Your task to perform on an android device: Open the stopwatch Image 0: 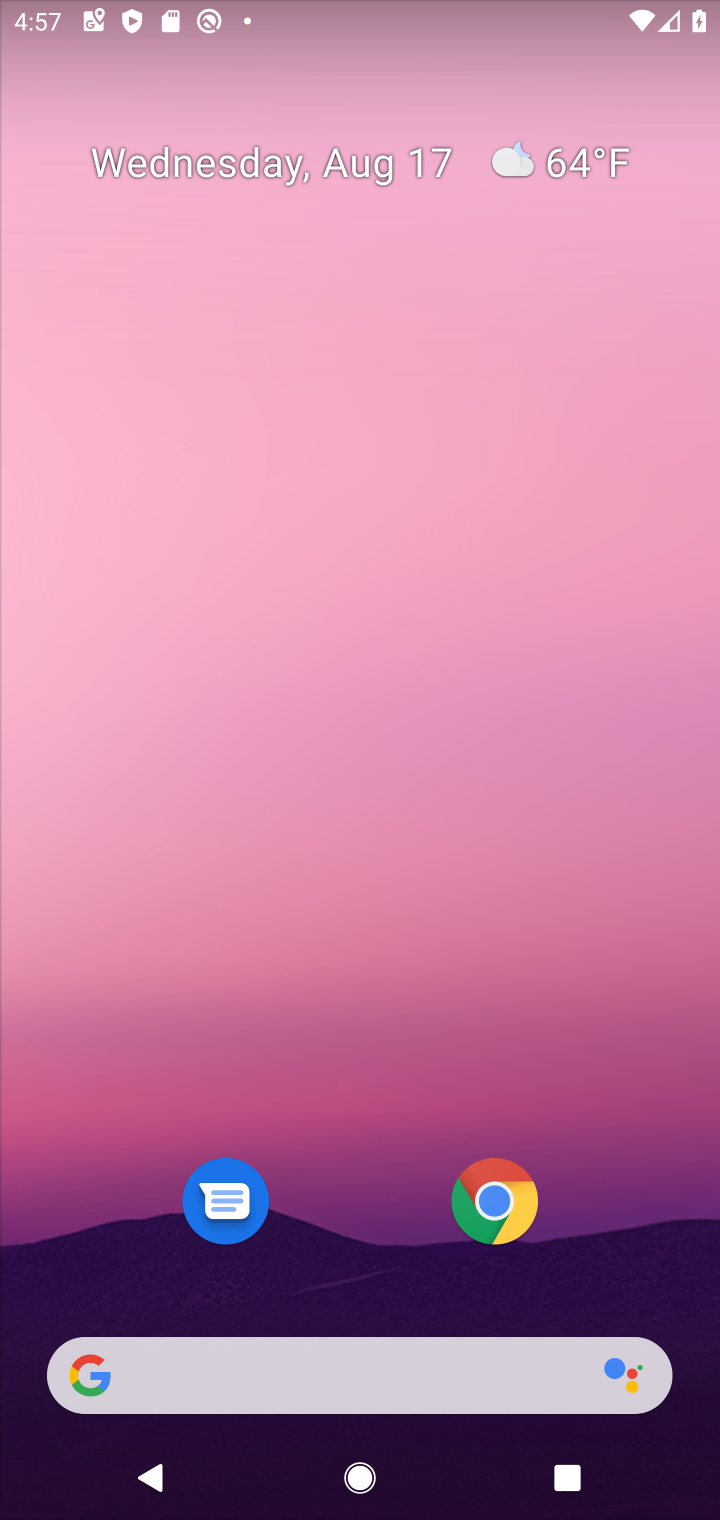
Step 0: press home button
Your task to perform on an android device: Open the stopwatch Image 1: 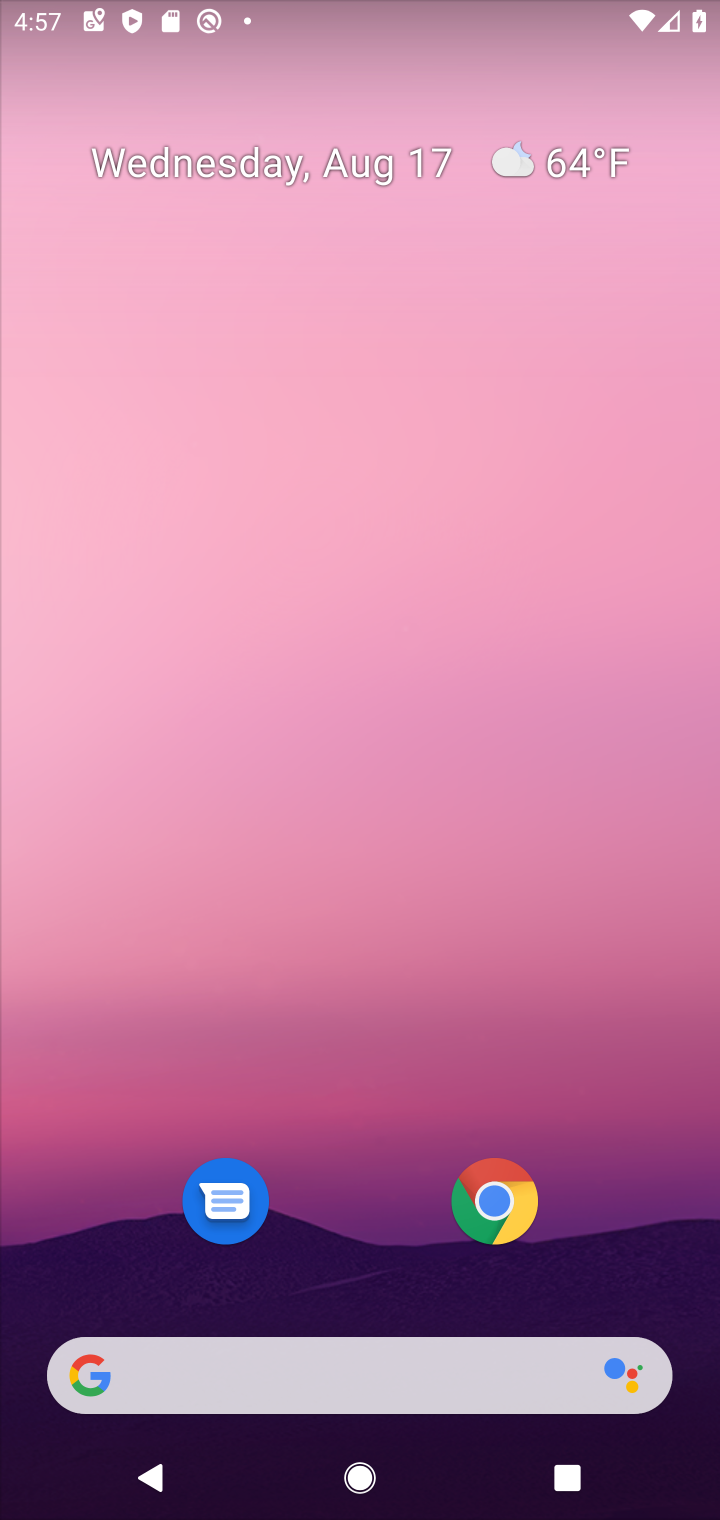
Step 1: press home button
Your task to perform on an android device: Open the stopwatch Image 2: 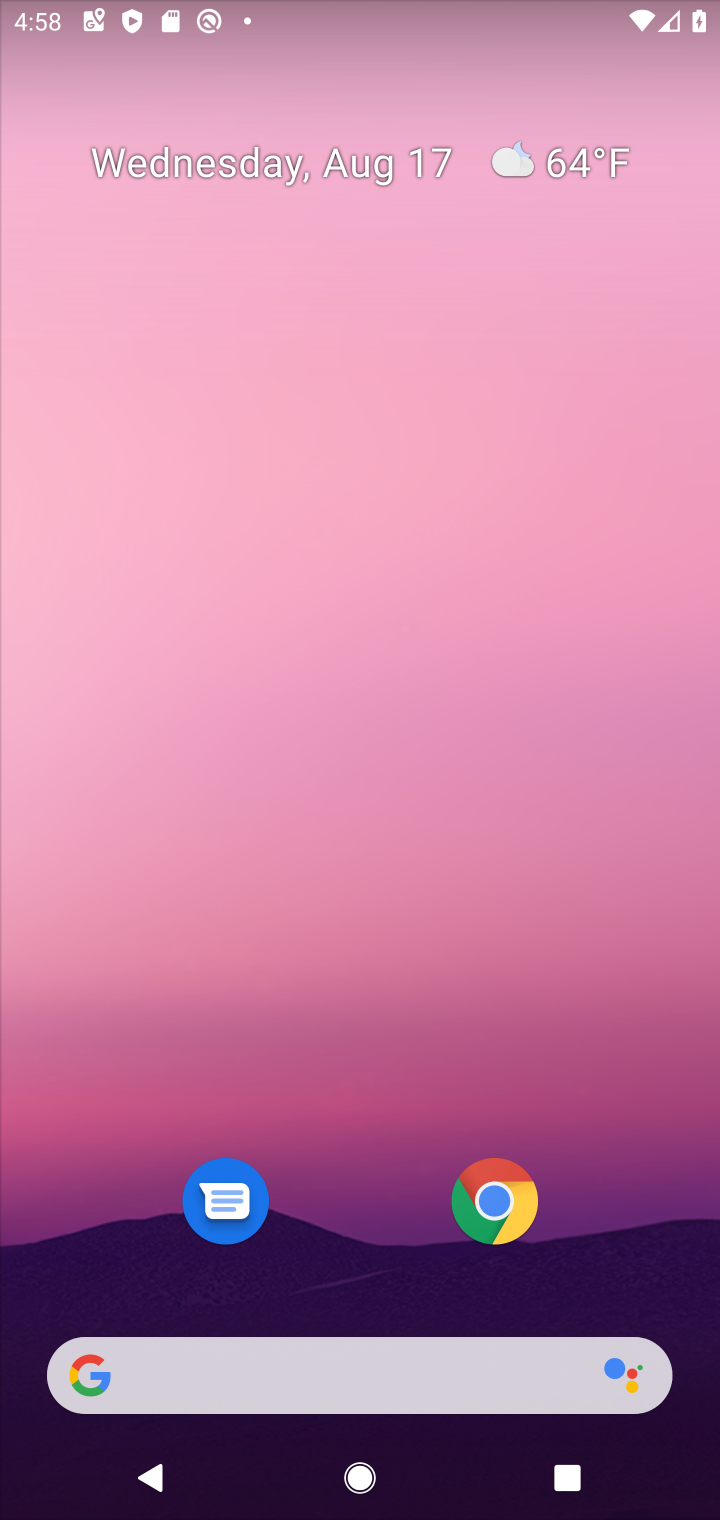
Step 2: drag from (350, 977) to (331, 63)
Your task to perform on an android device: Open the stopwatch Image 3: 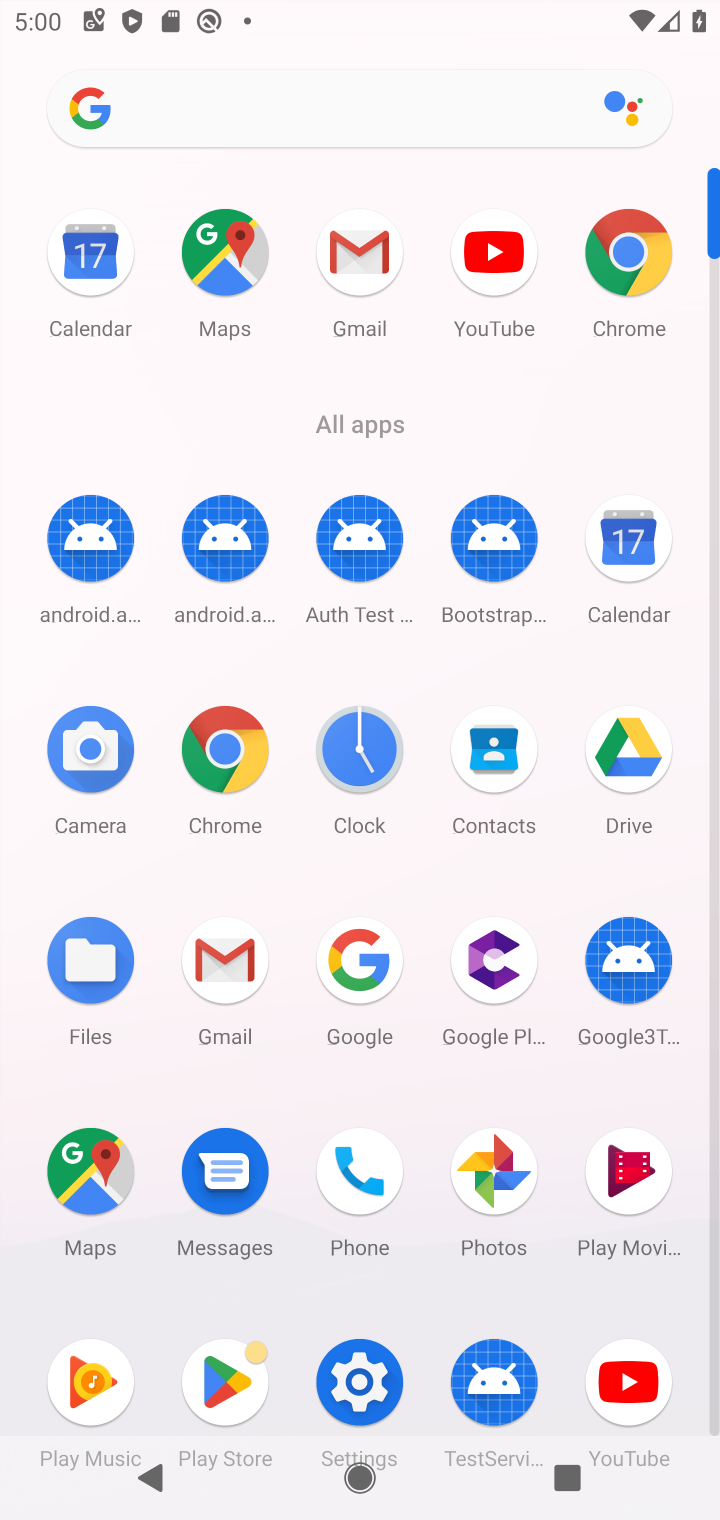
Step 3: click (362, 780)
Your task to perform on an android device: Open the stopwatch Image 4: 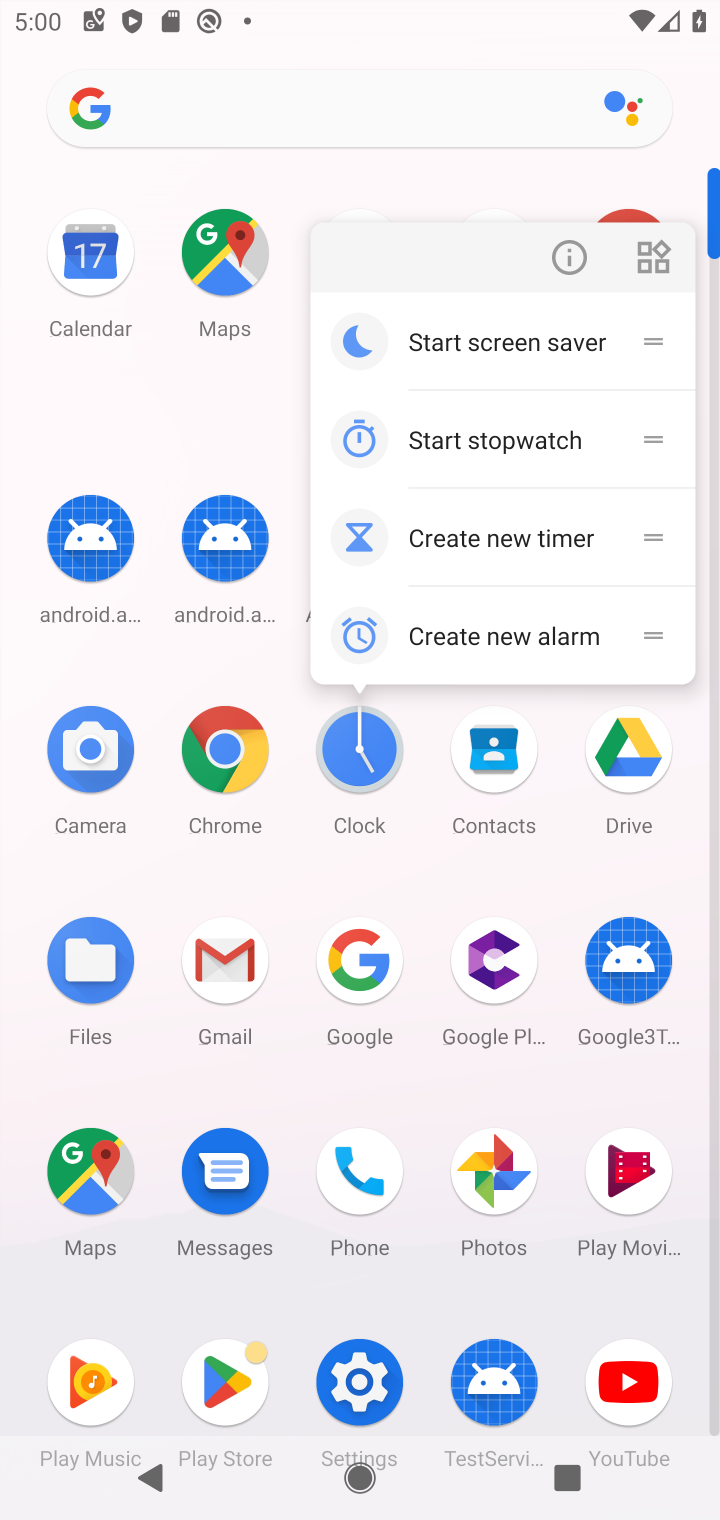
Step 4: click (362, 780)
Your task to perform on an android device: Open the stopwatch Image 5: 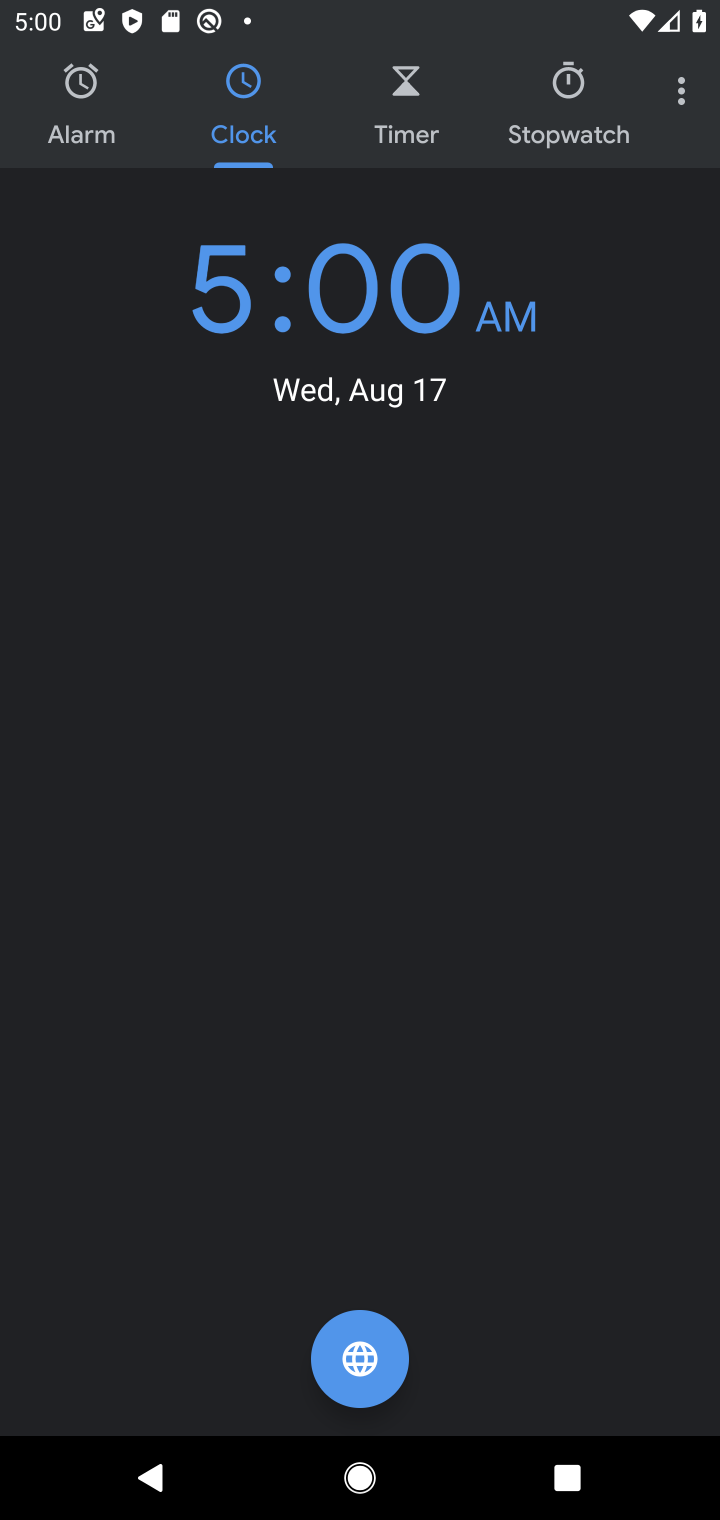
Step 5: click (583, 101)
Your task to perform on an android device: Open the stopwatch Image 6: 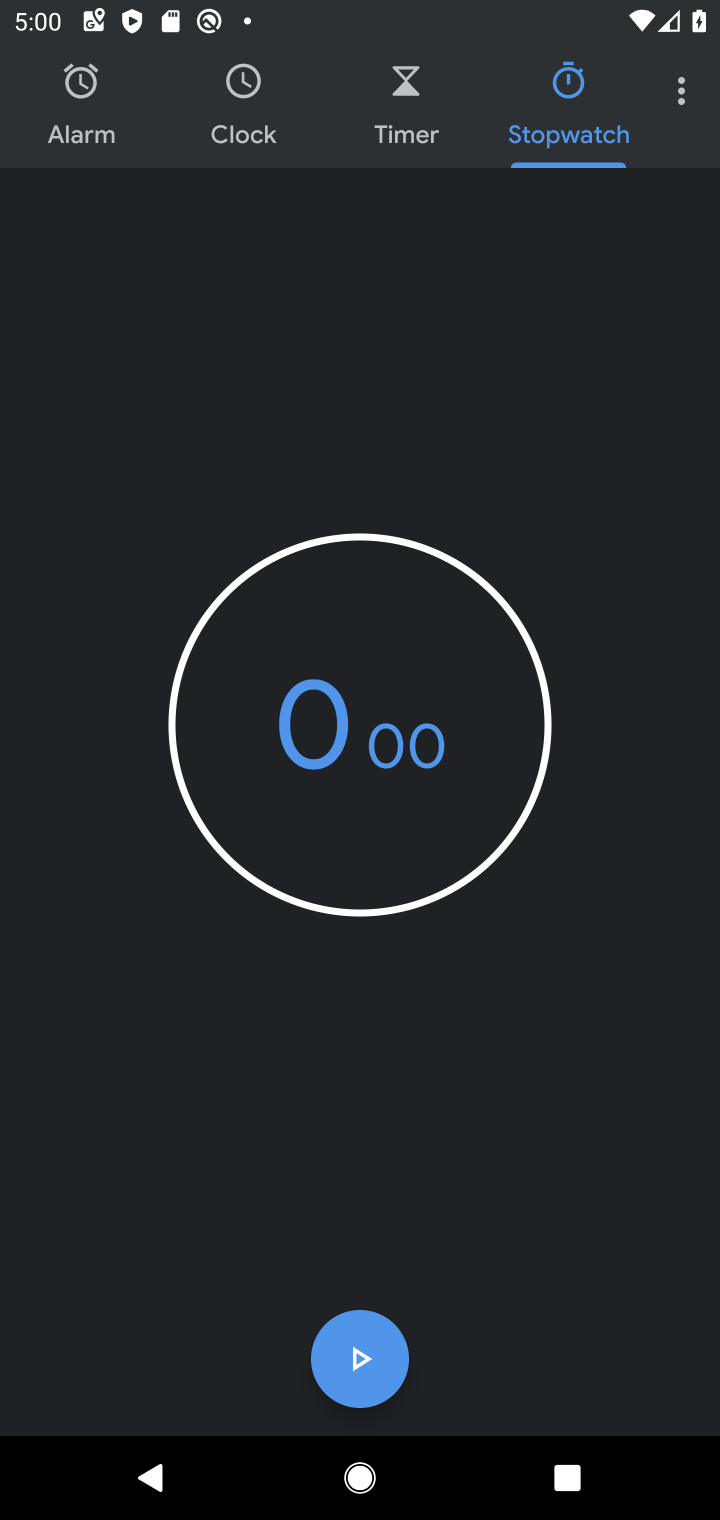
Step 6: task complete